Your task to perform on an android device: Go to Amazon Image 0: 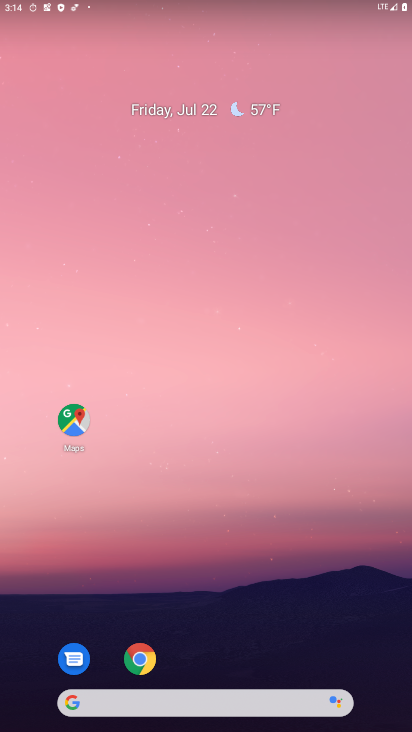
Step 0: click (142, 653)
Your task to perform on an android device: Go to Amazon Image 1: 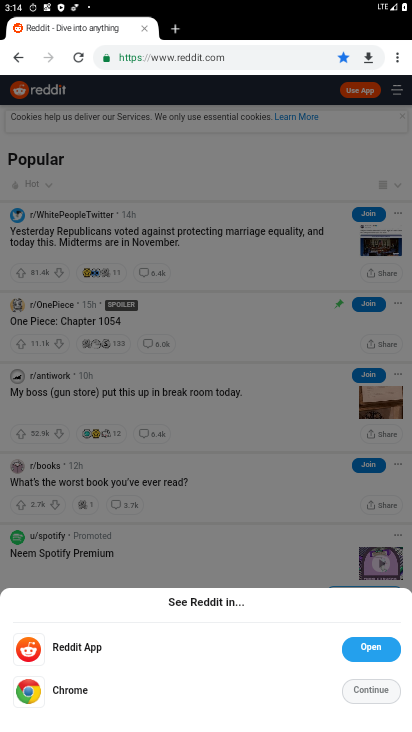
Step 1: click (161, 59)
Your task to perform on an android device: Go to Amazon Image 2: 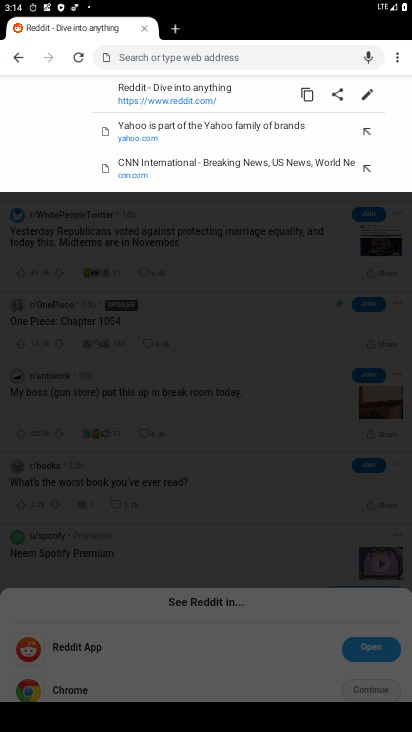
Step 2: type "amazon"
Your task to perform on an android device: Go to Amazon Image 3: 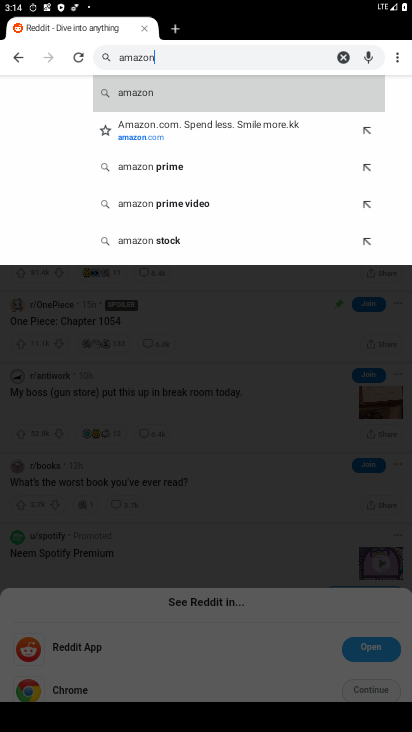
Step 3: click (161, 96)
Your task to perform on an android device: Go to Amazon Image 4: 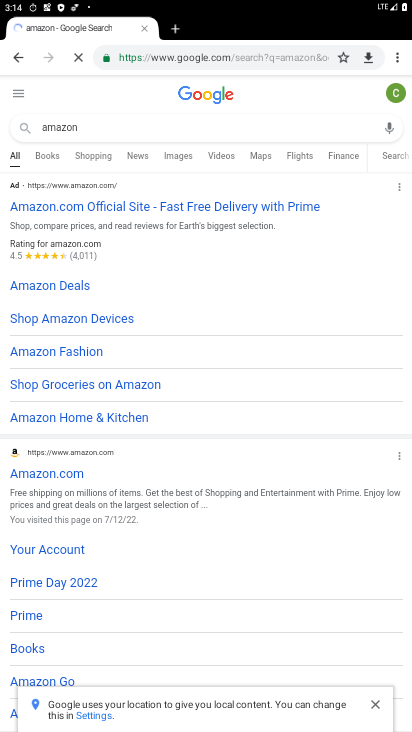
Step 4: click (316, 210)
Your task to perform on an android device: Go to Amazon Image 5: 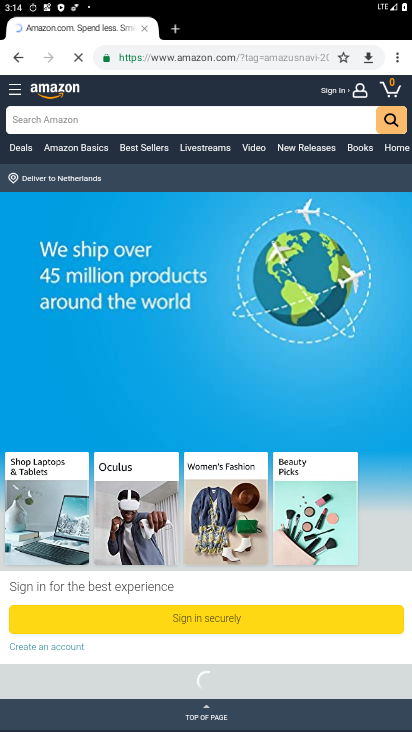
Step 5: task complete